Your task to perform on an android device: allow notifications from all sites in the chrome app Image 0: 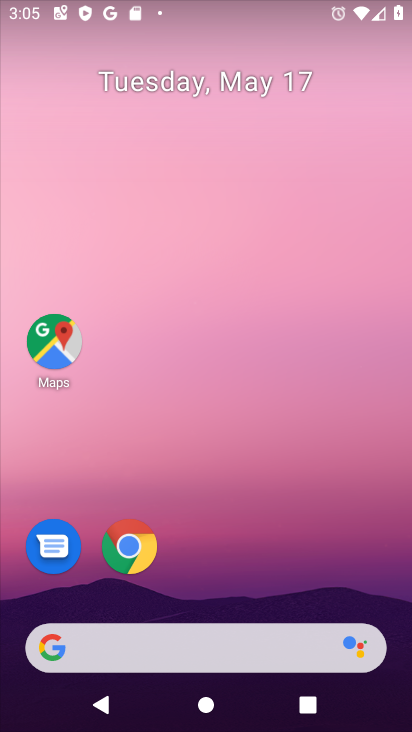
Step 0: click (126, 549)
Your task to perform on an android device: allow notifications from all sites in the chrome app Image 1: 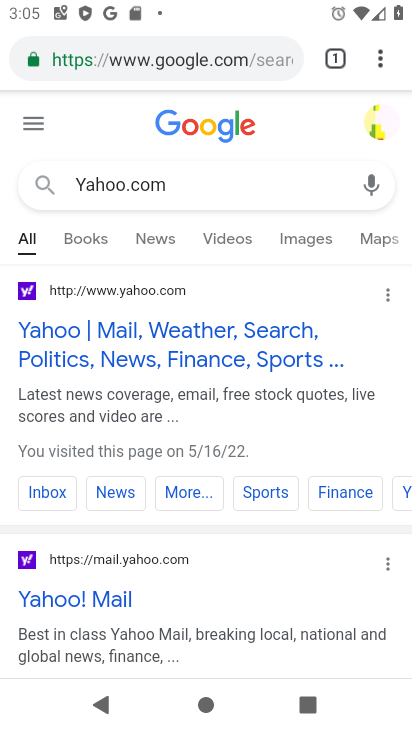
Step 1: click (377, 60)
Your task to perform on an android device: allow notifications from all sites in the chrome app Image 2: 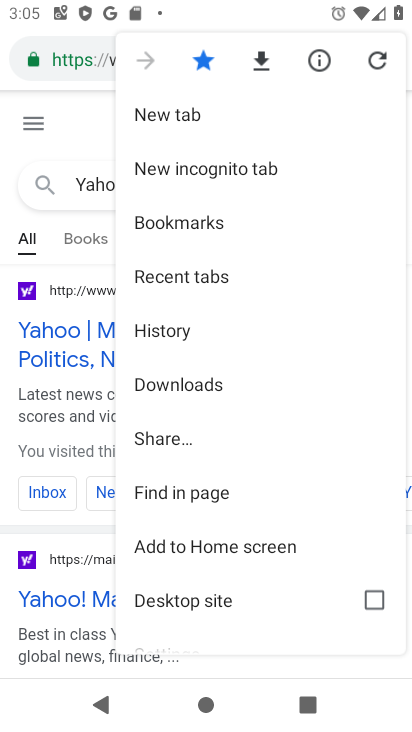
Step 2: drag from (318, 521) to (328, 319)
Your task to perform on an android device: allow notifications from all sites in the chrome app Image 3: 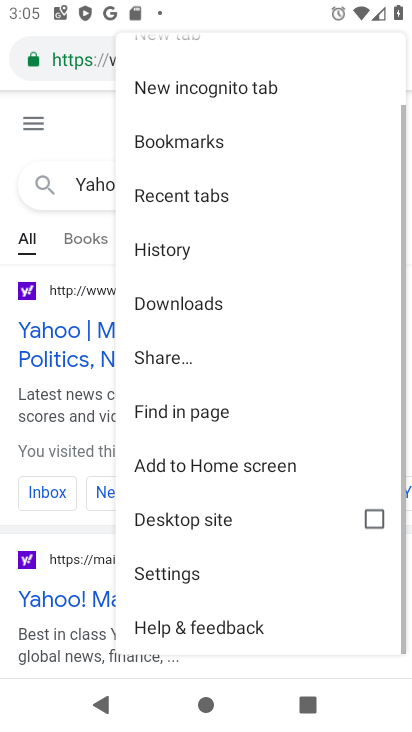
Step 3: click (175, 578)
Your task to perform on an android device: allow notifications from all sites in the chrome app Image 4: 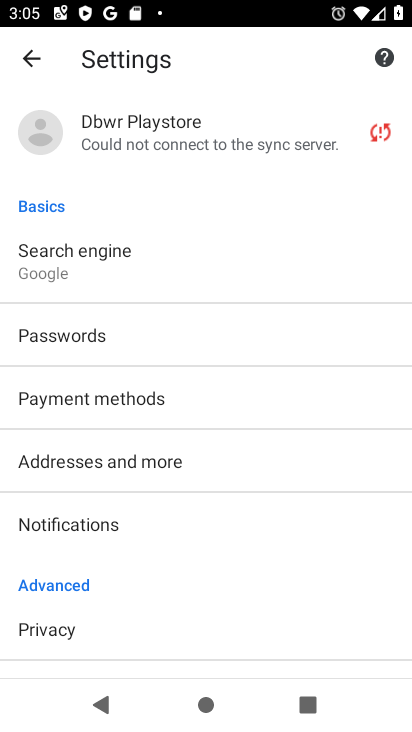
Step 4: drag from (194, 555) to (212, 372)
Your task to perform on an android device: allow notifications from all sites in the chrome app Image 5: 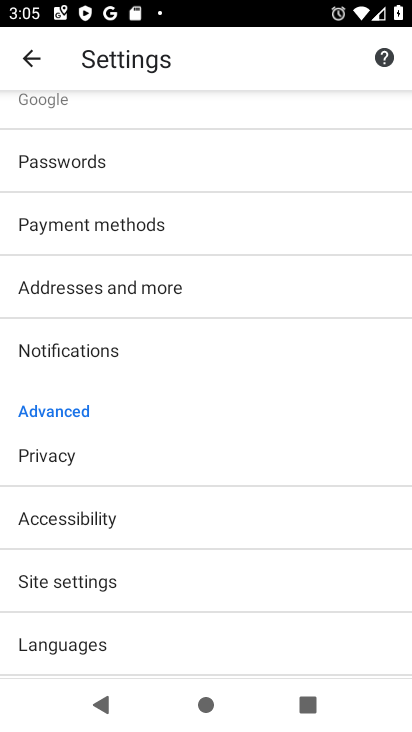
Step 5: click (83, 582)
Your task to perform on an android device: allow notifications from all sites in the chrome app Image 6: 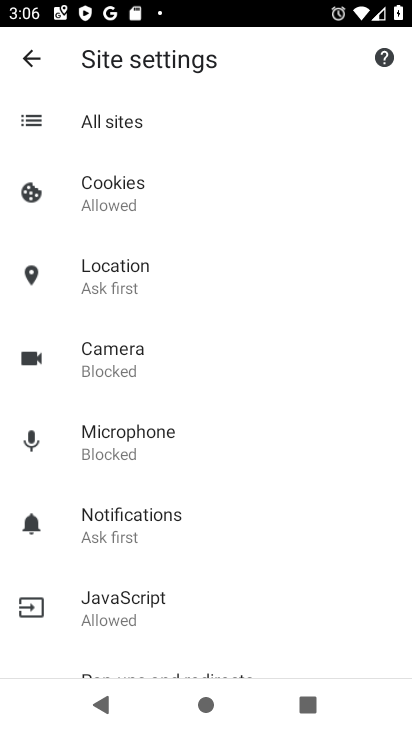
Step 6: click (117, 518)
Your task to perform on an android device: allow notifications from all sites in the chrome app Image 7: 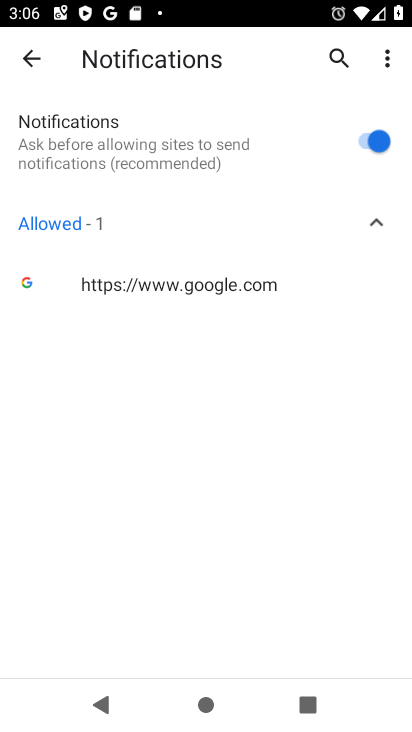
Step 7: task complete